Your task to perform on an android device: Open Chrome and go to settings Image 0: 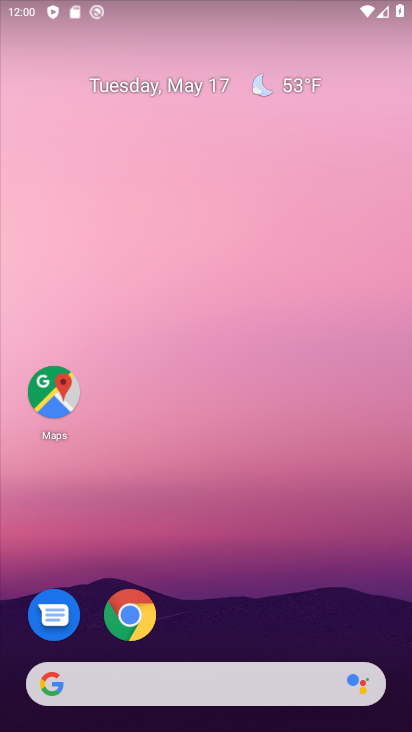
Step 0: click (130, 616)
Your task to perform on an android device: Open Chrome and go to settings Image 1: 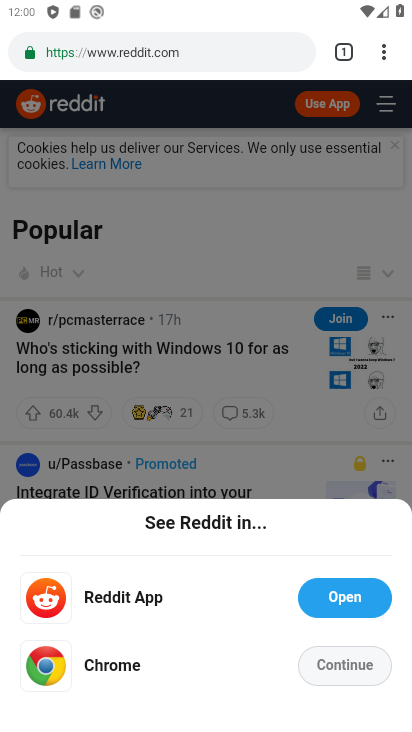
Step 1: click (149, 679)
Your task to perform on an android device: Open Chrome and go to settings Image 2: 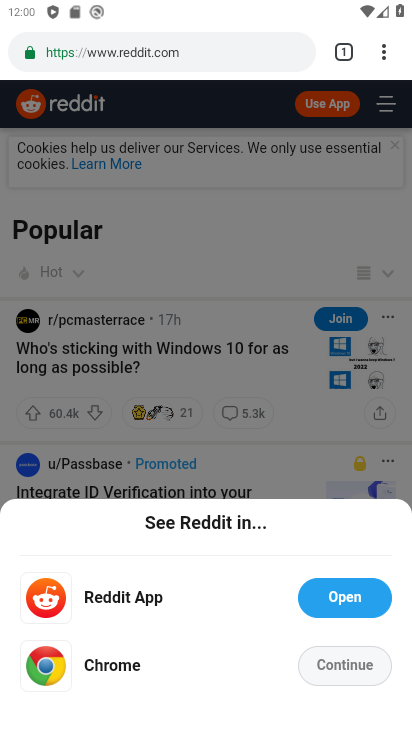
Step 2: click (357, 662)
Your task to perform on an android device: Open Chrome and go to settings Image 3: 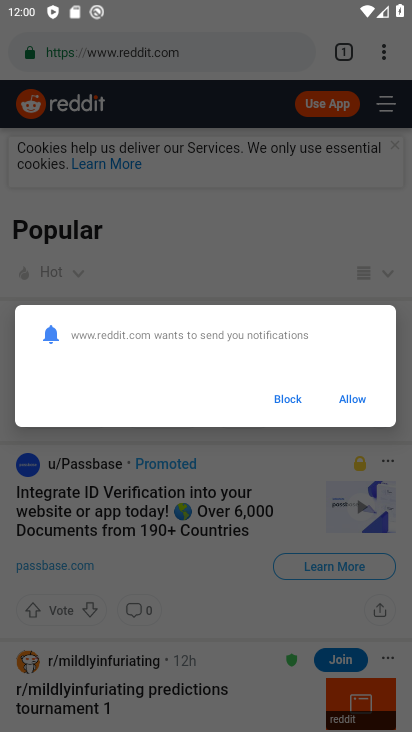
Step 3: click (385, 50)
Your task to perform on an android device: Open Chrome and go to settings Image 4: 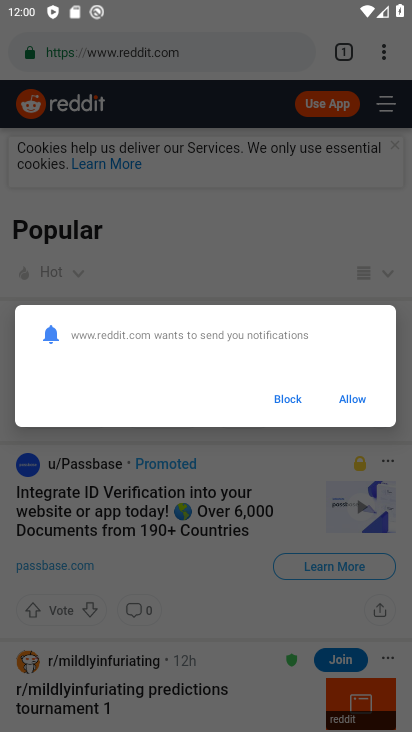
Step 4: click (286, 399)
Your task to perform on an android device: Open Chrome and go to settings Image 5: 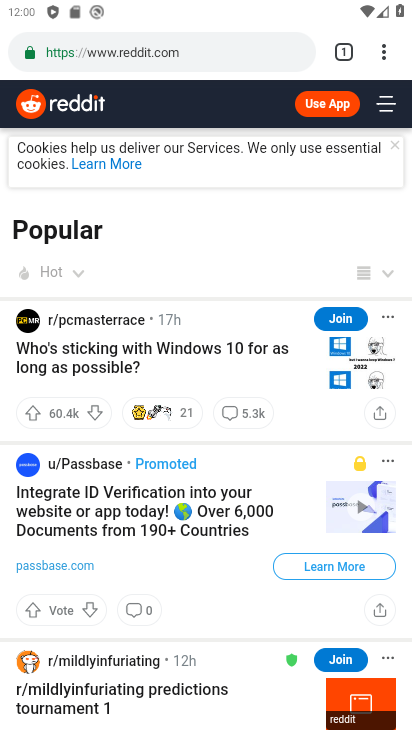
Step 5: click (386, 46)
Your task to perform on an android device: Open Chrome and go to settings Image 6: 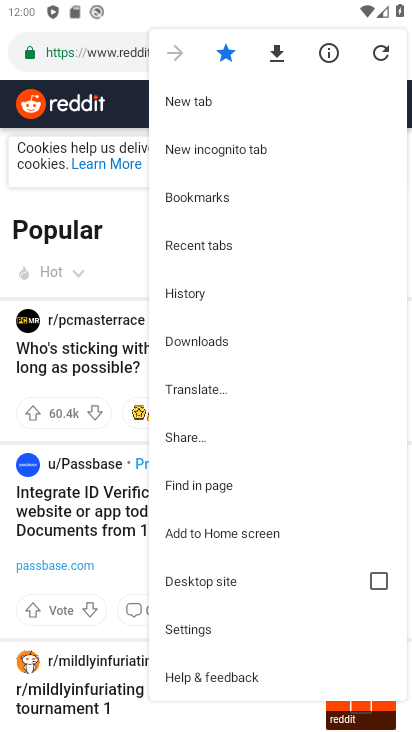
Step 6: click (227, 624)
Your task to perform on an android device: Open Chrome and go to settings Image 7: 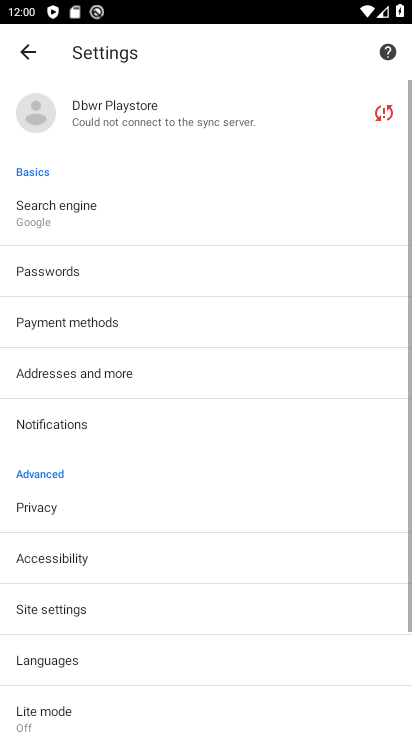
Step 7: task complete